Your task to perform on an android device: Add lenovo thinkpad to the cart on target.com Image 0: 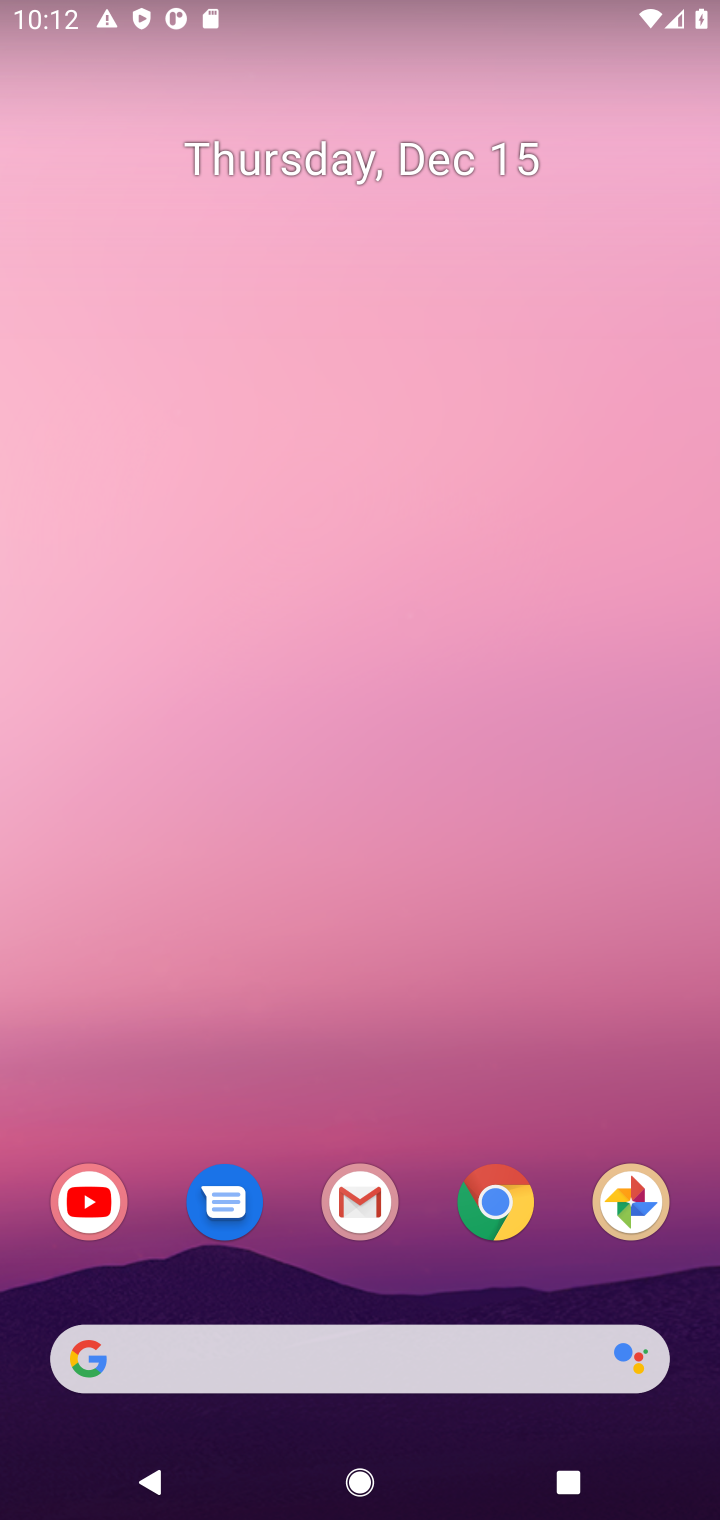
Step 0: click (499, 1206)
Your task to perform on an android device: Add lenovo thinkpad to the cart on target.com Image 1: 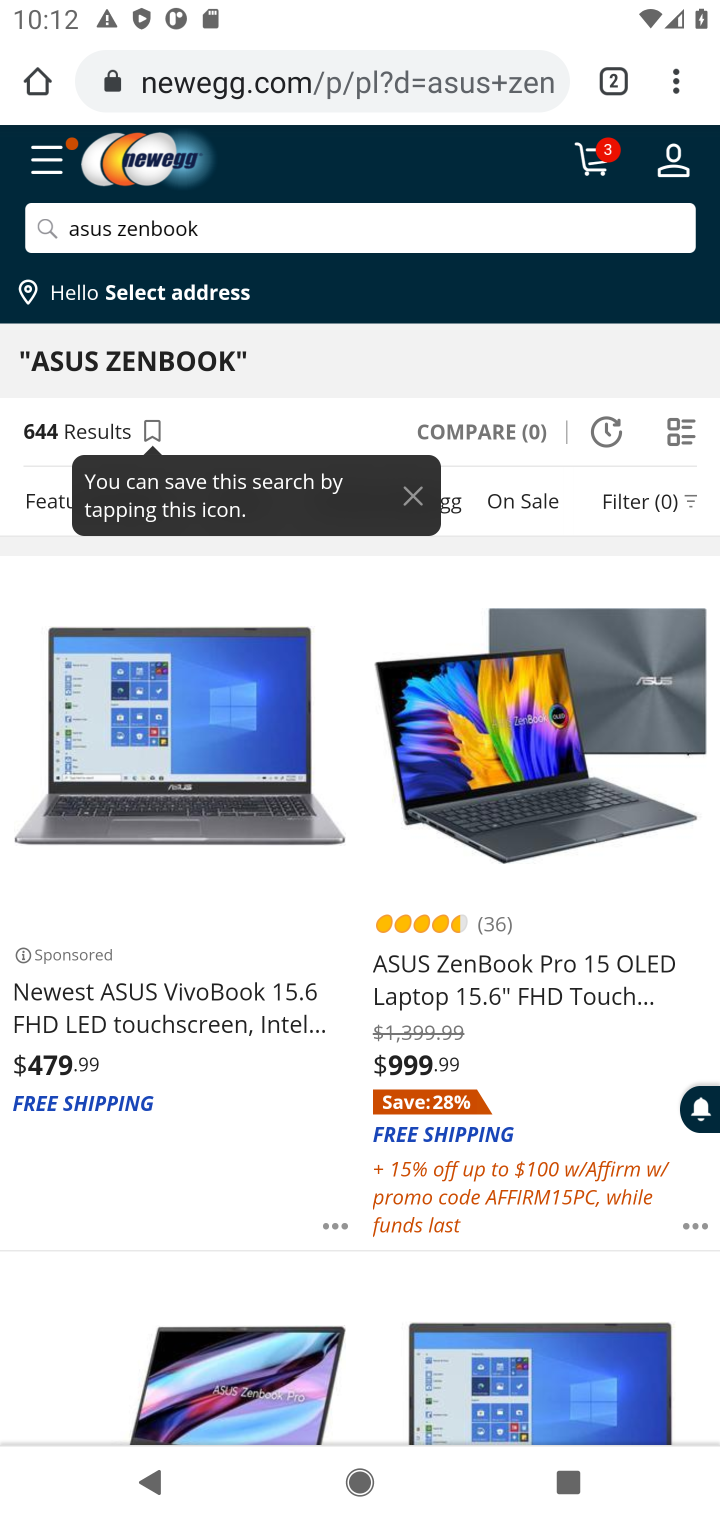
Step 1: click (288, 88)
Your task to perform on an android device: Add lenovo thinkpad to the cart on target.com Image 2: 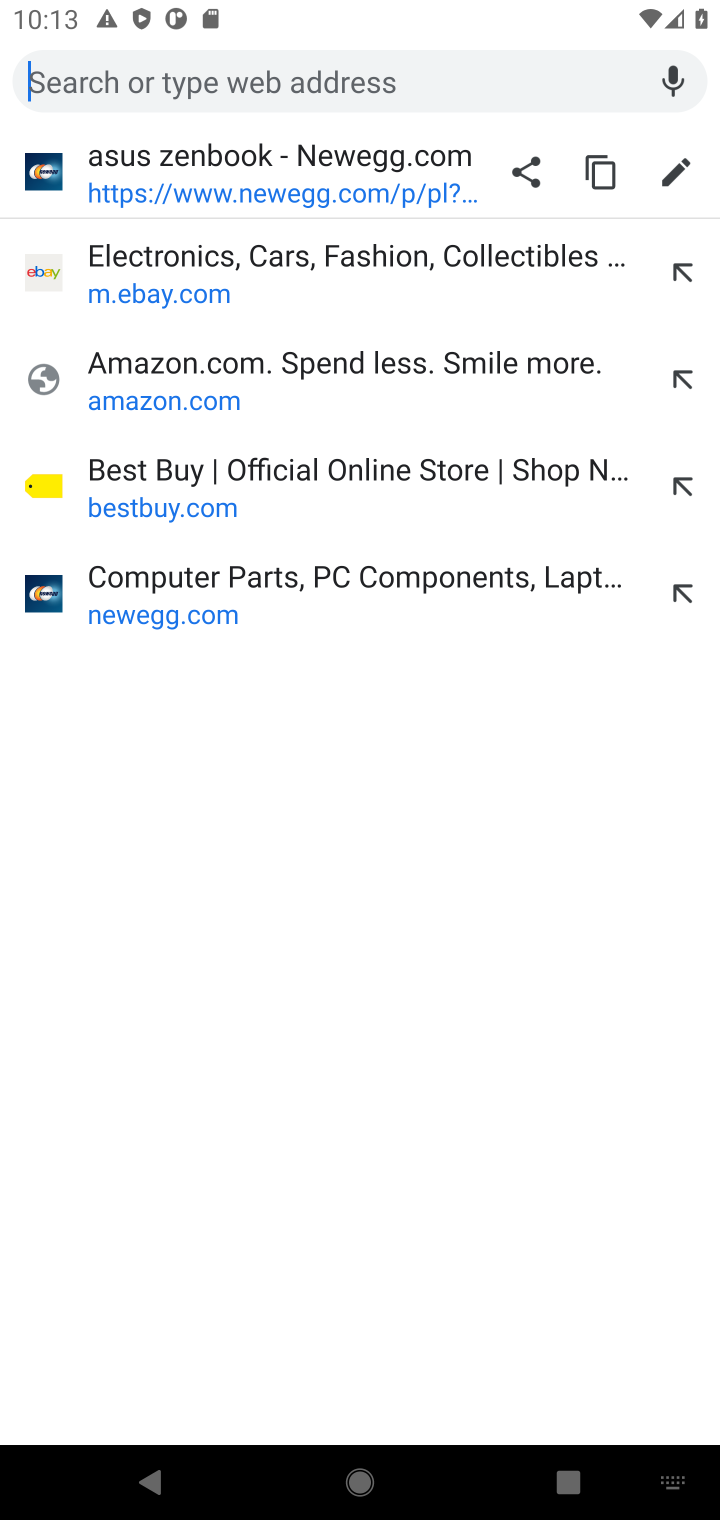
Step 2: type "target.com"
Your task to perform on an android device: Add lenovo thinkpad to the cart on target.com Image 3: 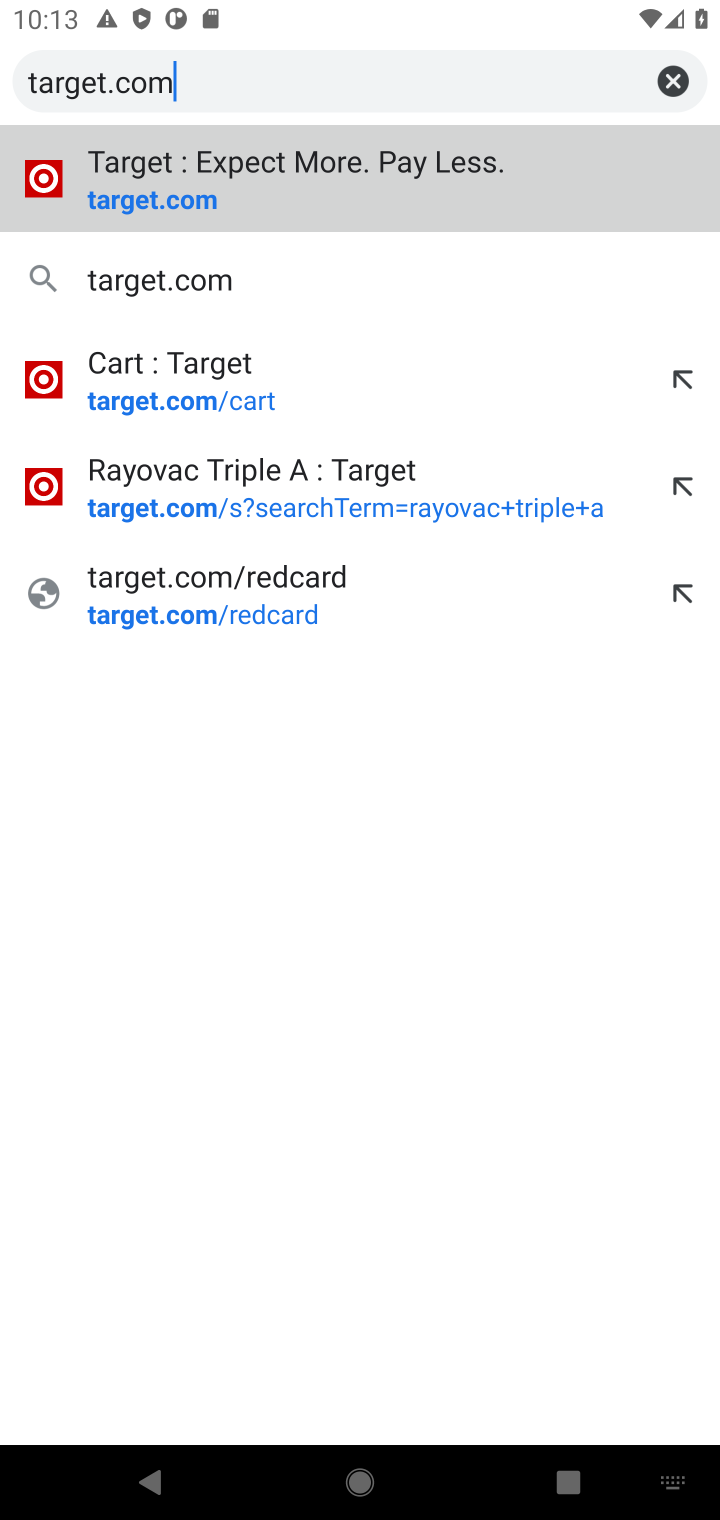
Step 3: click (135, 207)
Your task to perform on an android device: Add lenovo thinkpad to the cart on target.com Image 4: 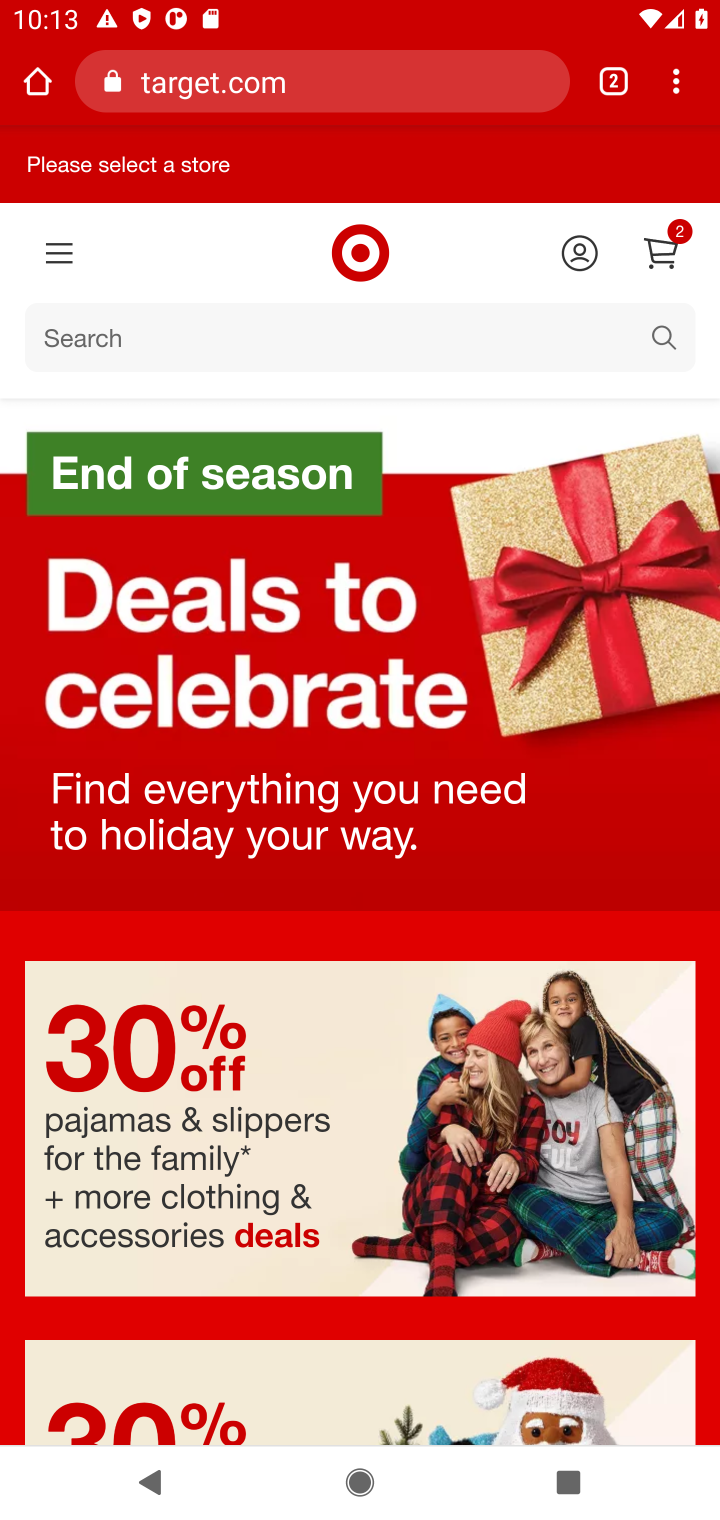
Step 4: click (96, 344)
Your task to perform on an android device: Add lenovo thinkpad to the cart on target.com Image 5: 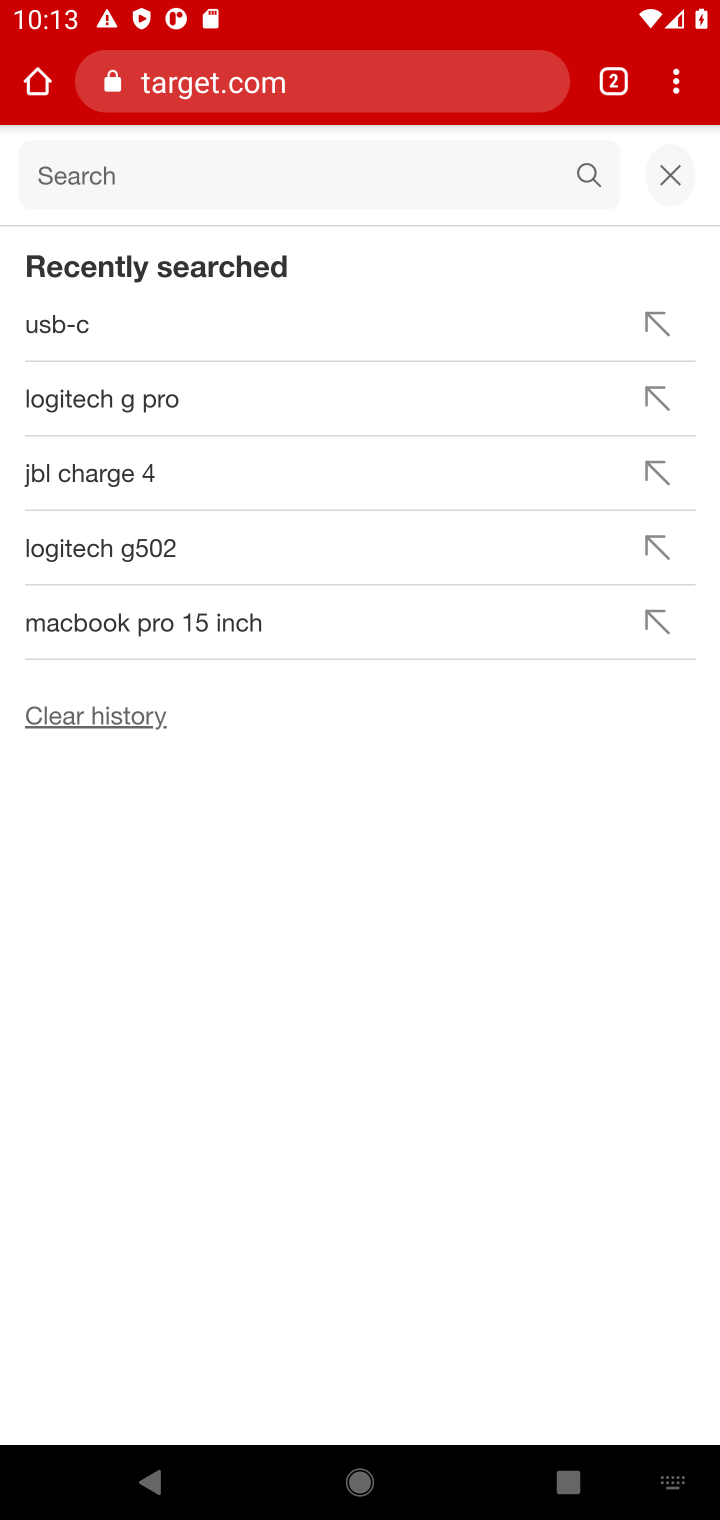
Step 5: type "lenovo thinkpad"
Your task to perform on an android device: Add lenovo thinkpad to the cart on target.com Image 6: 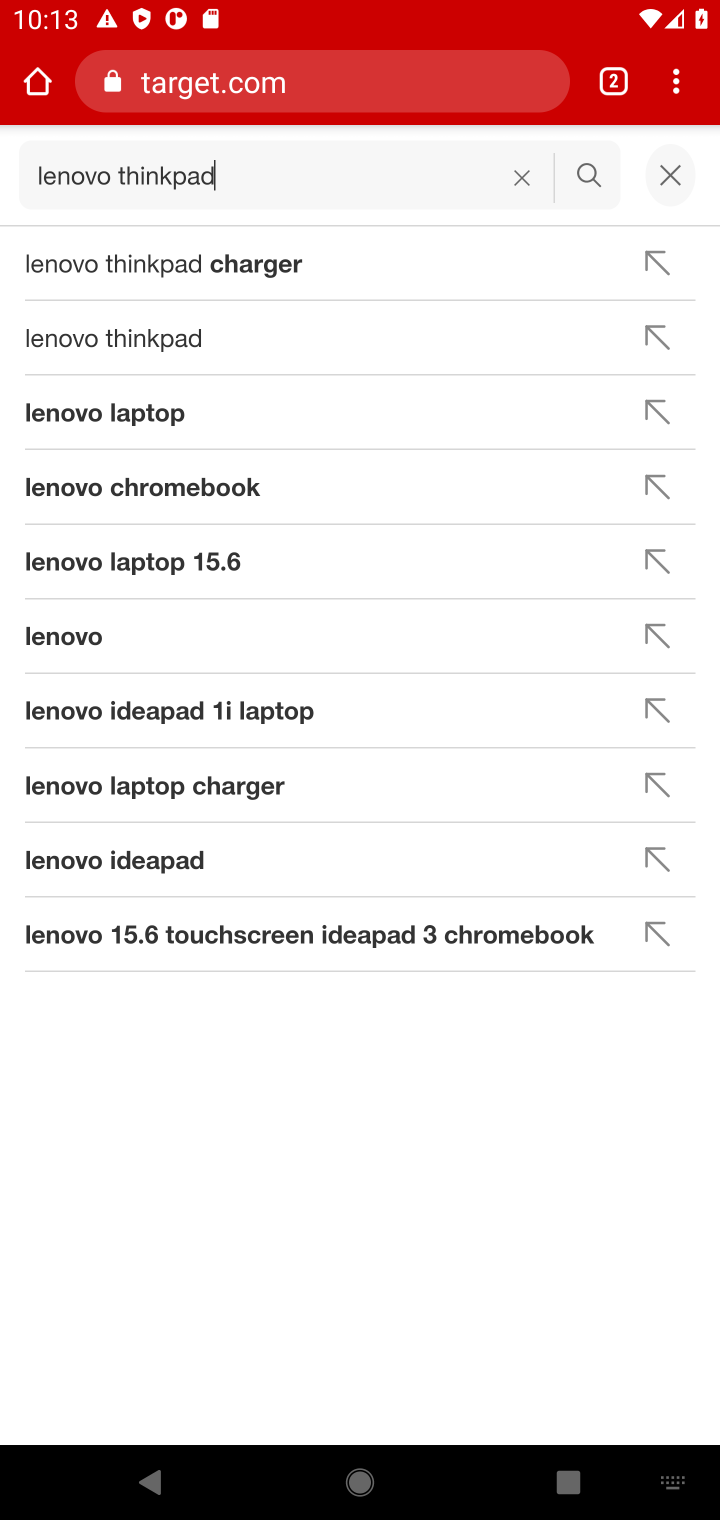
Step 6: click (67, 343)
Your task to perform on an android device: Add lenovo thinkpad to the cart on target.com Image 7: 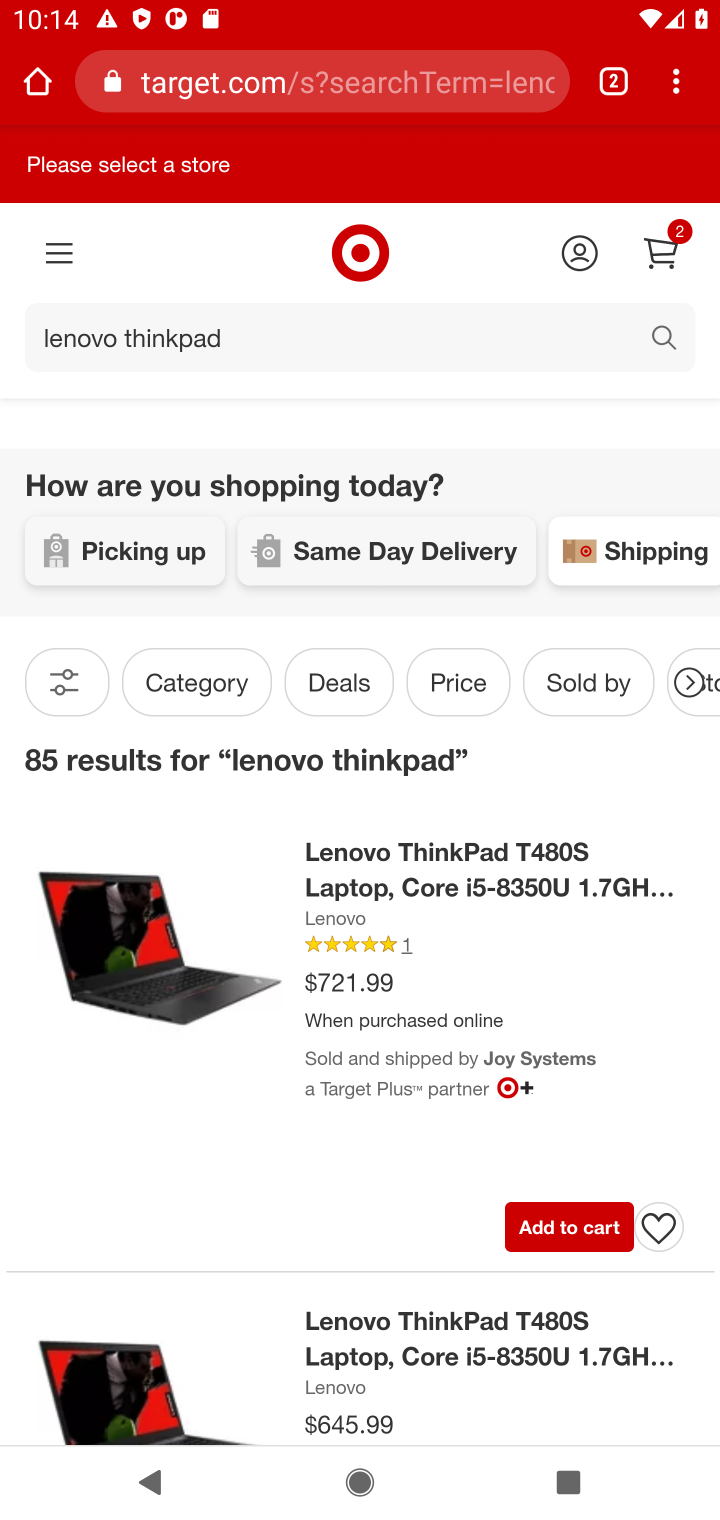
Step 7: click (554, 1225)
Your task to perform on an android device: Add lenovo thinkpad to the cart on target.com Image 8: 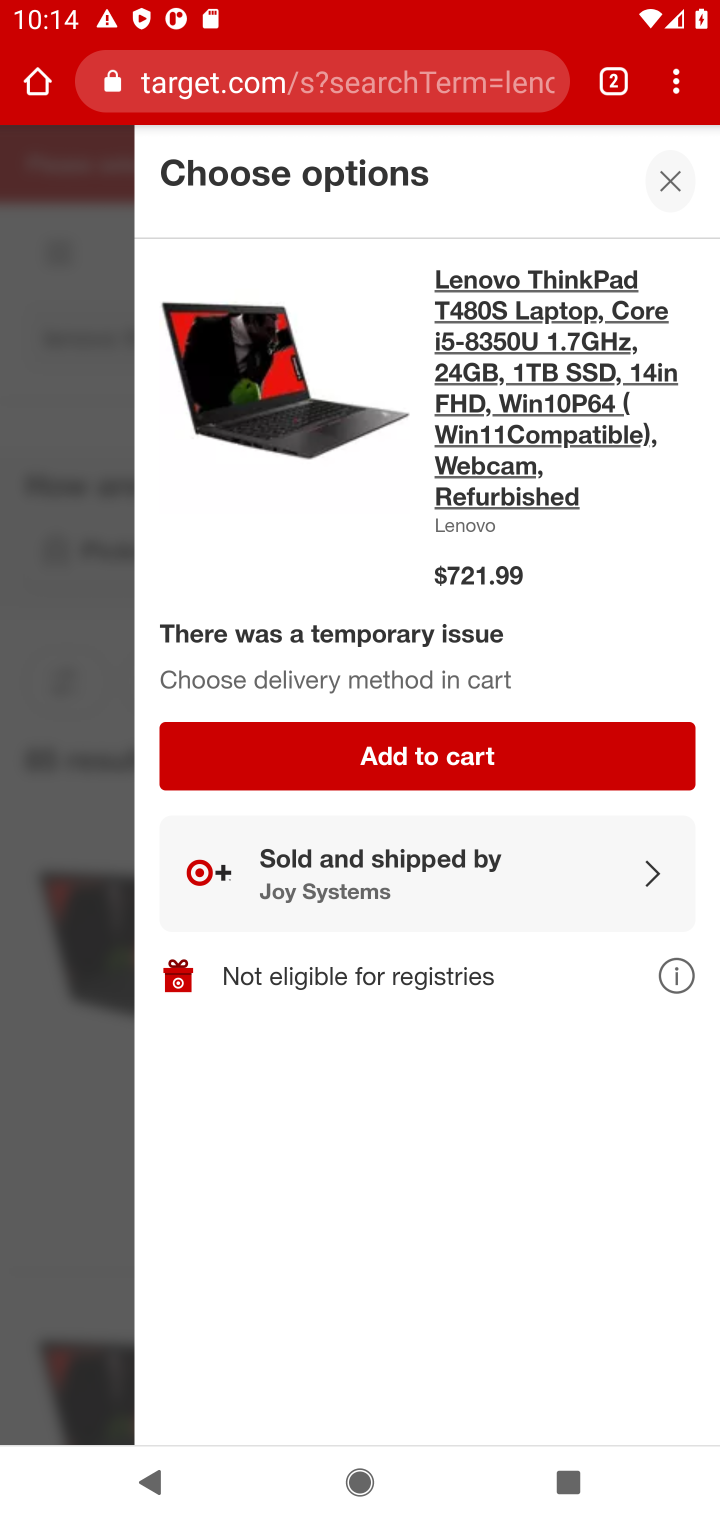
Step 8: click (436, 758)
Your task to perform on an android device: Add lenovo thinkpad to the cart on target.com Image 9: 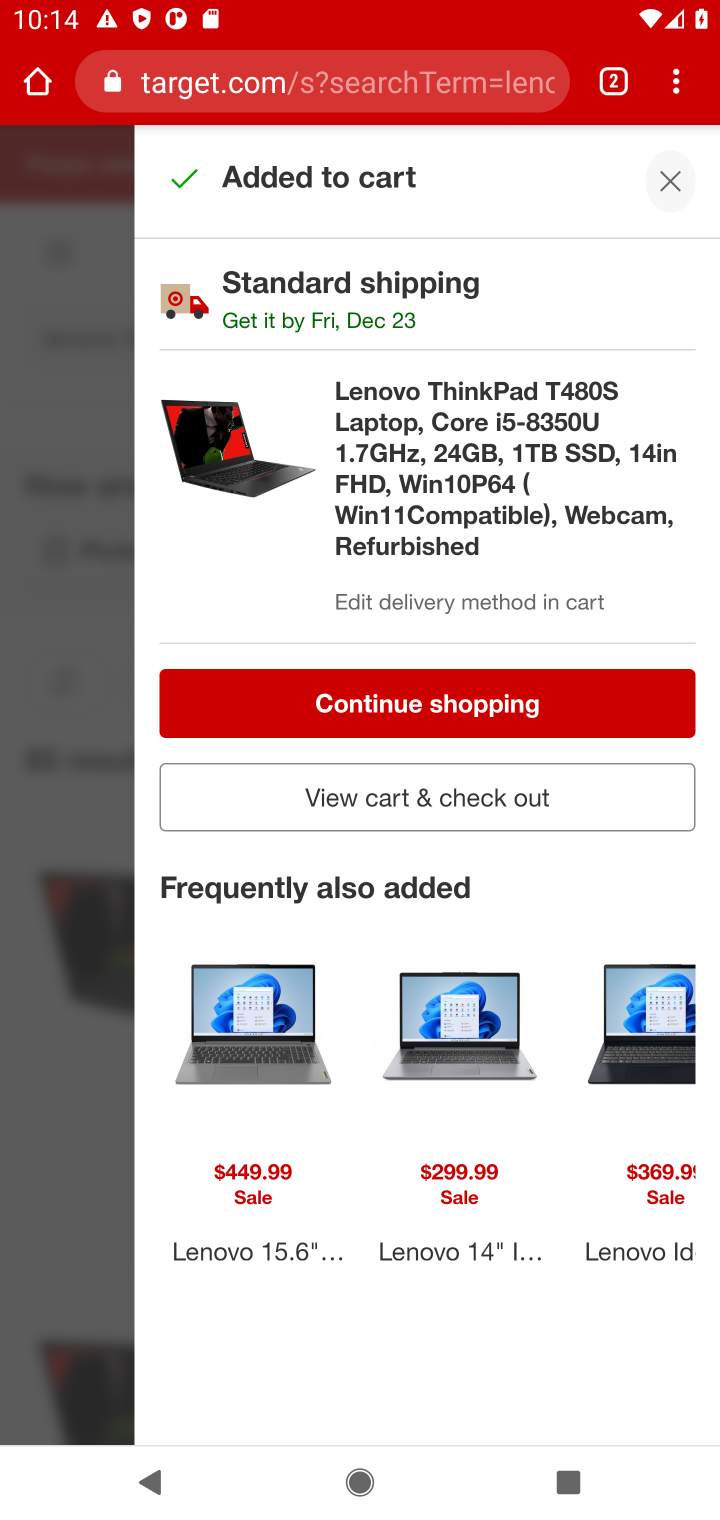
Step 9: task complete